Your task to perform on an android device: open app "Mercado Libre" (install if not already installed) and enter user name: "tolerating@yahoo.com" and password: "Kepler" Image 0: 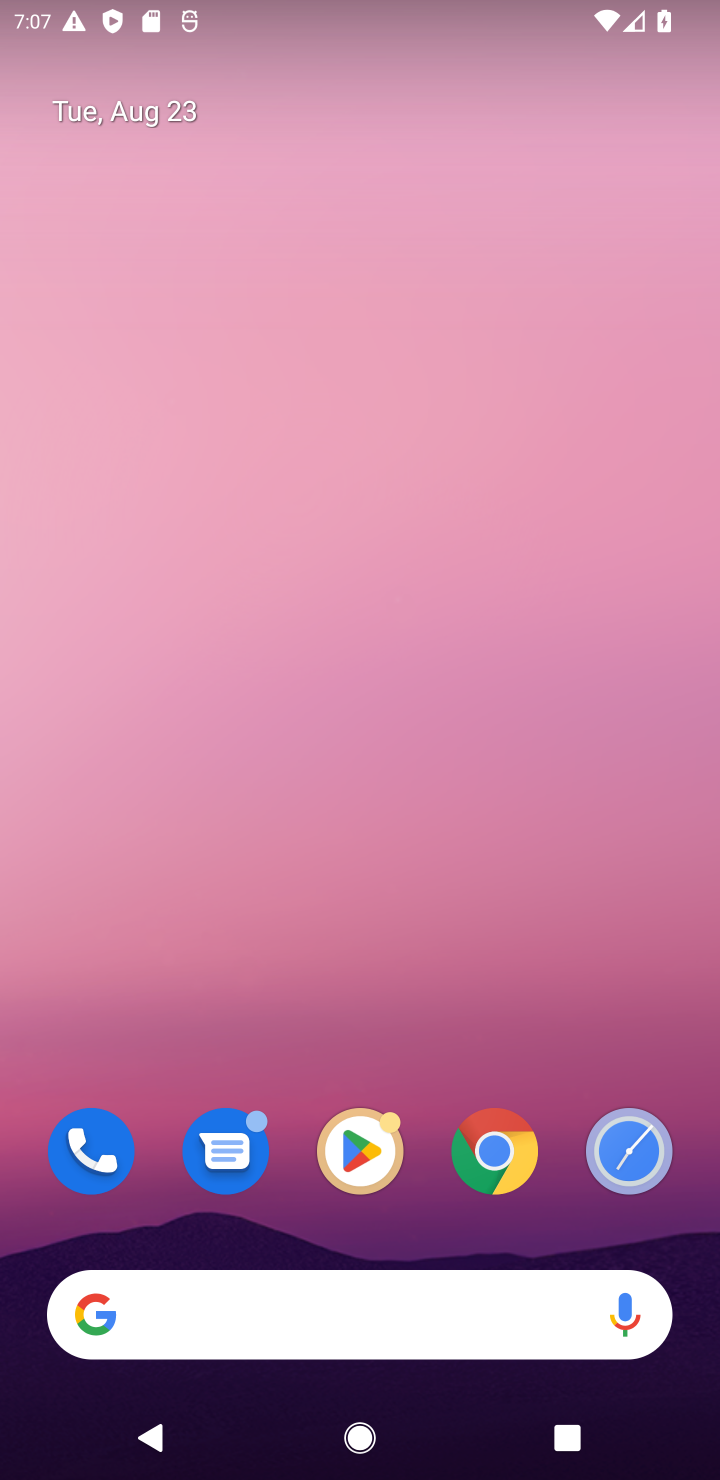
Step 0: press home button
Your task to perform on an android device: open app "Mercado Libre" (install if not already installed) and enter user name: "tolerating@yahoo.com" and password: "Kepler" Image 1: 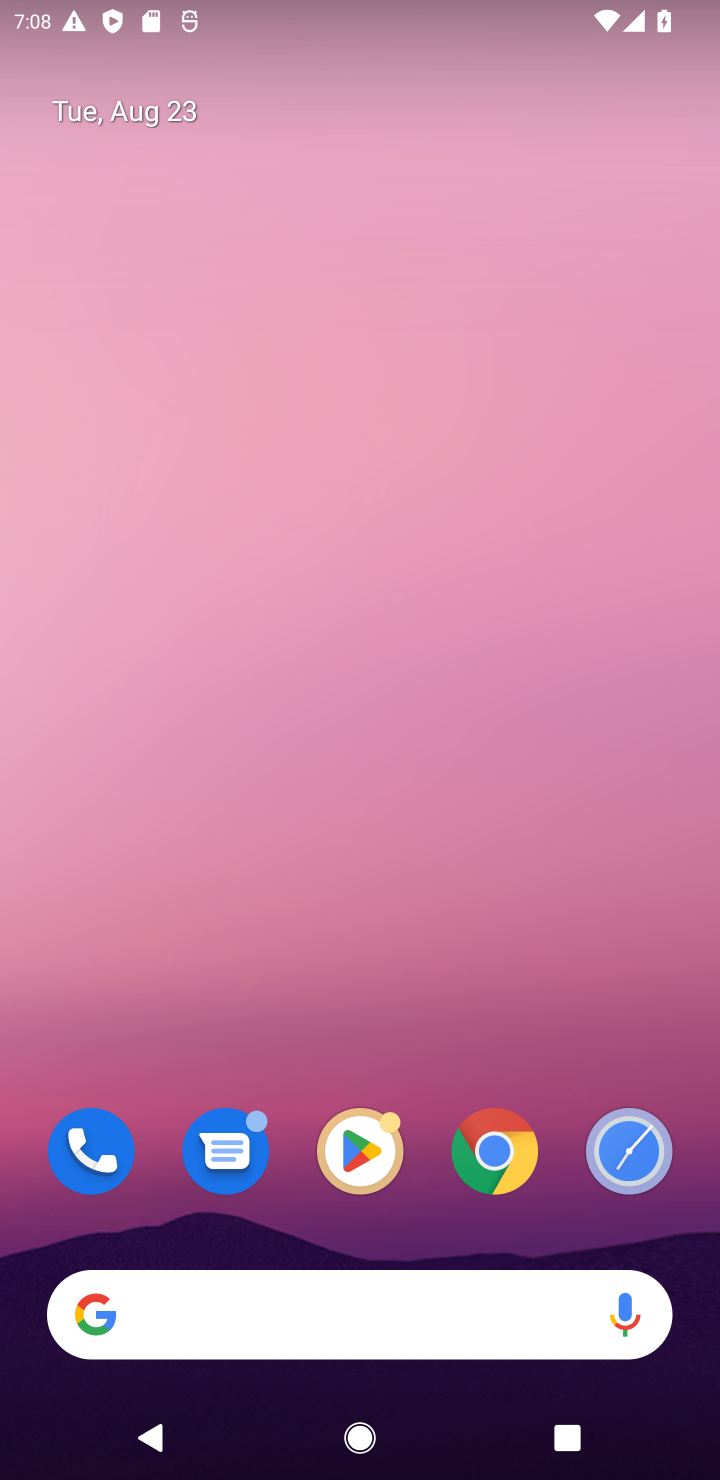
Step 1: click (357, 1141)
Your task to perform on an android device: open app "Mercado Libre" (install if not already installed) and enter user name: "tolerating@yahoo.com" and password: "Kepler" Image 2: 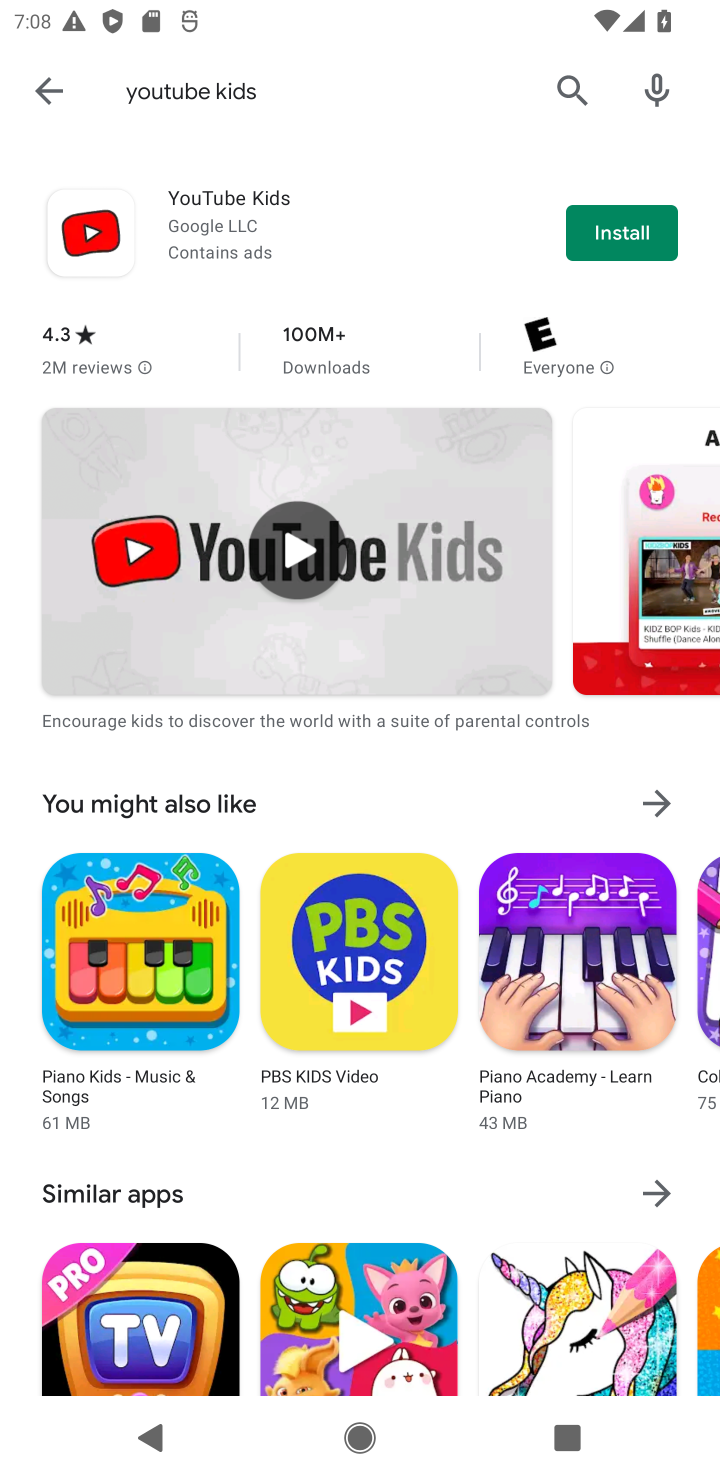
Step 2: click (558, 96)
Your task to perform on an android device: open app "Mercado Libre" (install if not already installed) and enter user name: "tolerating@yahoo.com" and password: "Kepler" Image 3: 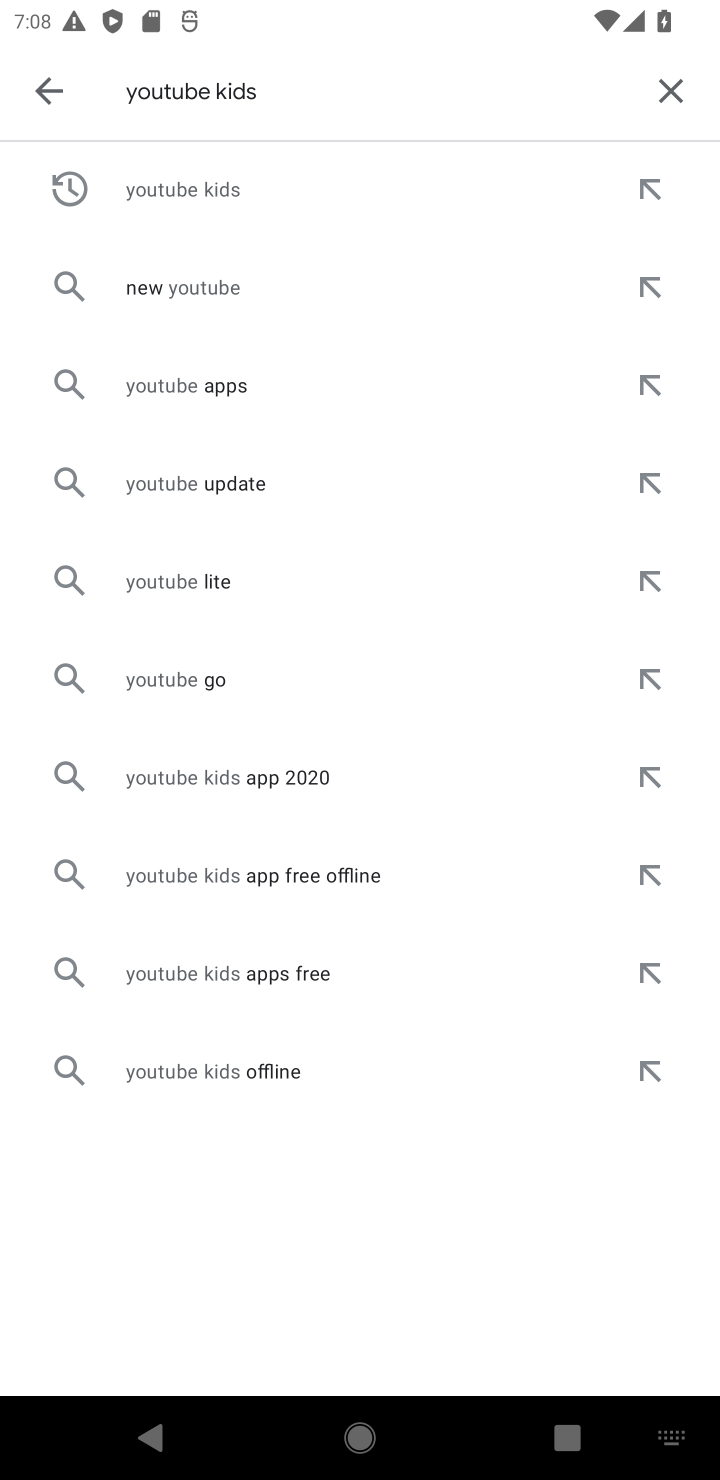
Step 3: click (673, 89)
Your task to perform on an android device: open app "Mercado Libre" (install if not already installed) and enter user name: "tolerating@yahoo.com" and password: "Kepler" Image 4: 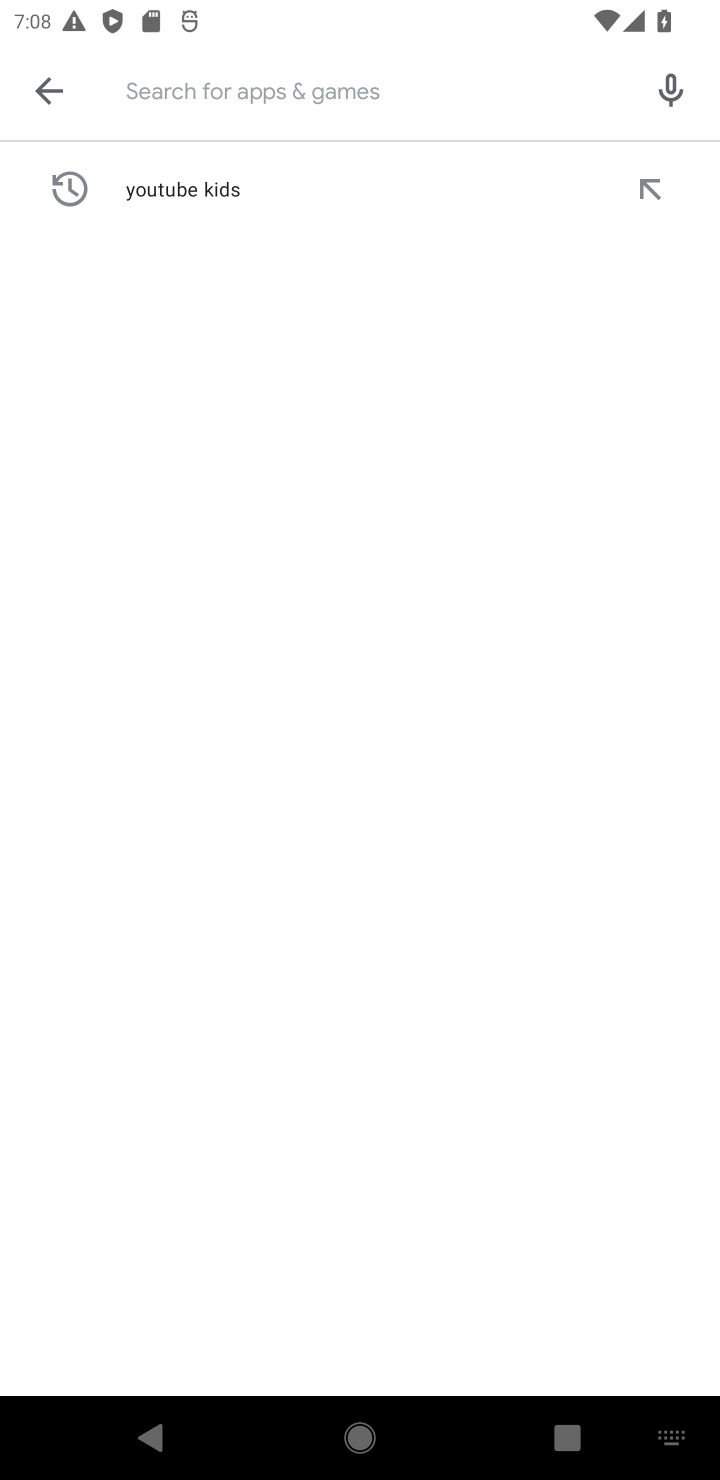
Step 4: type "Mercado Libre"
Your task to perform on an android device: open app "Mercado Libre" (install if not already installed) and enter user name: "tolerating@yahoo.com" and password: "Kepler" Image 5: 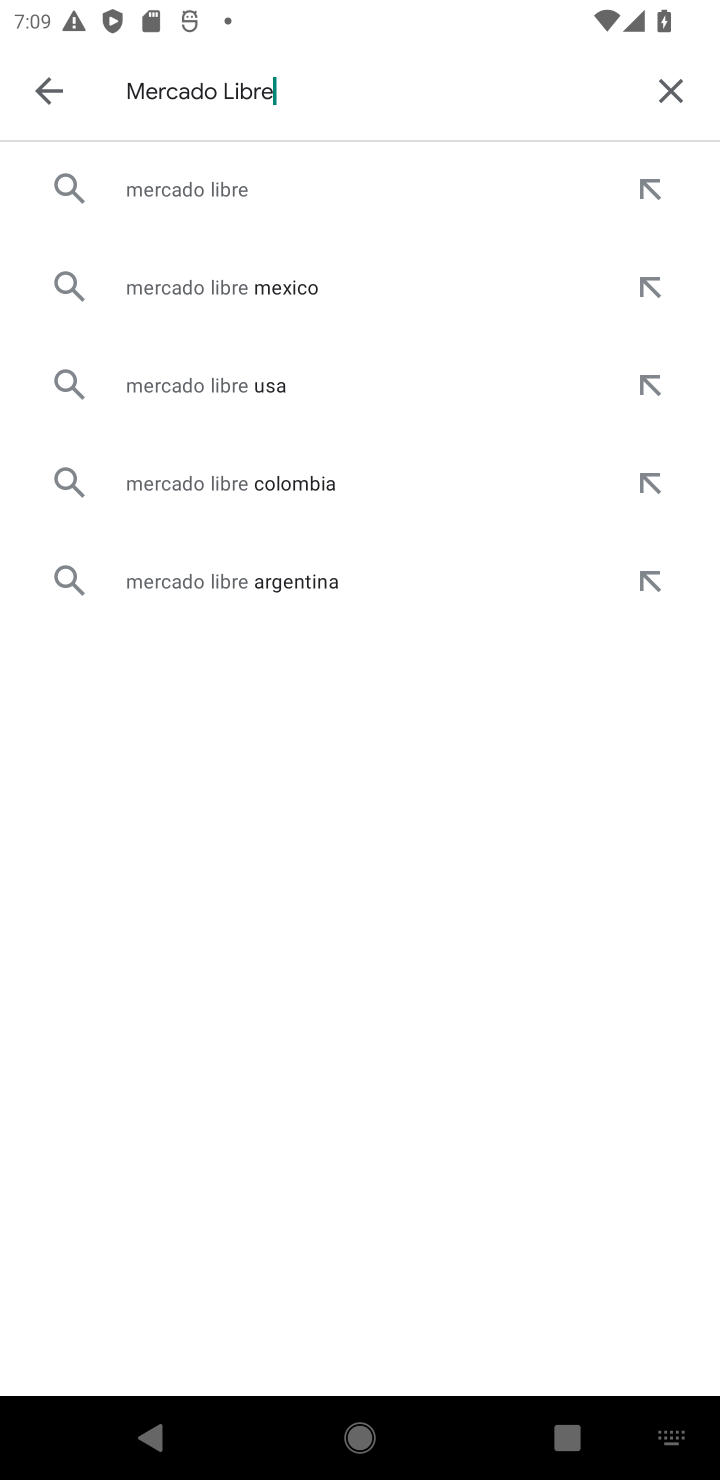
Step 5: click (176, 206)
Your task to perform on an android device: open app "Mercado Libre" (install if not already installed) and enter user name: "tolerating@yahoo.com" and password: "Kepler" Image 6: 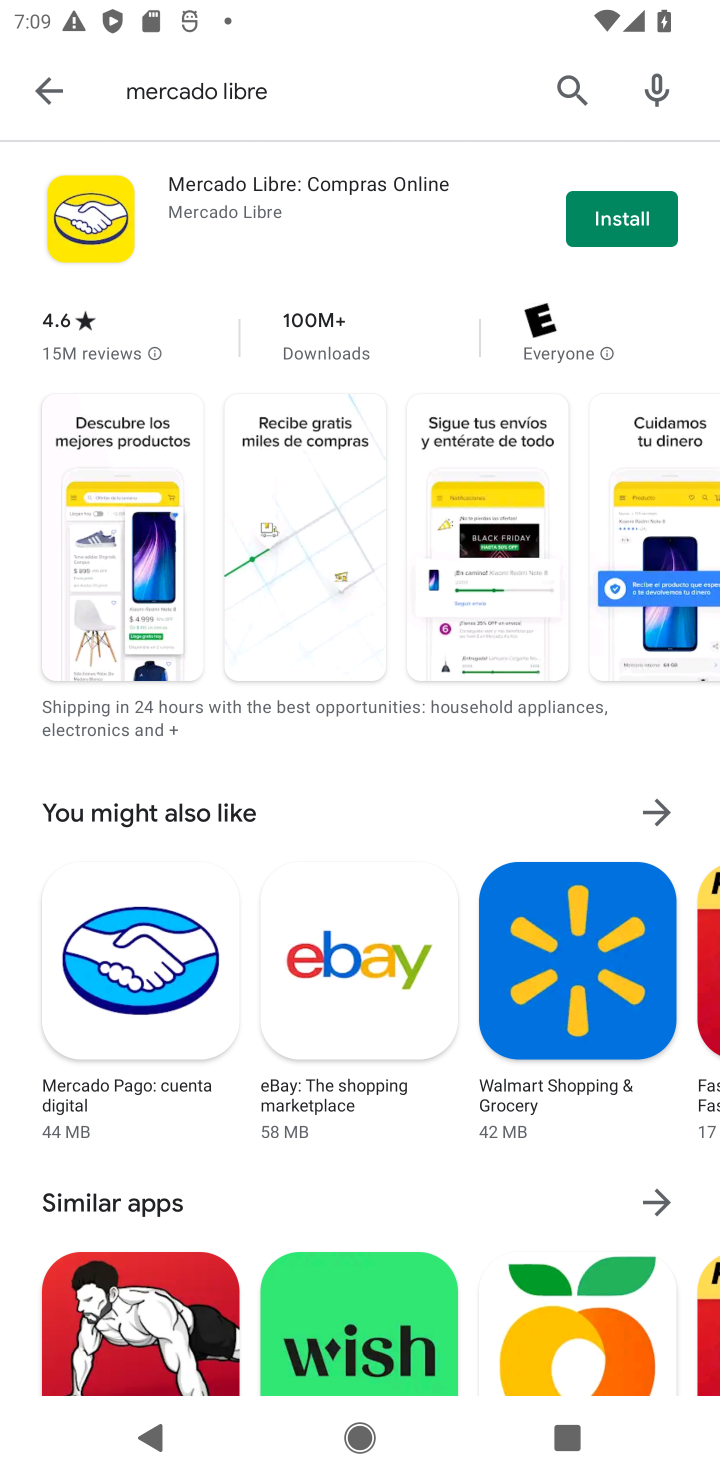
Step 6: click (624, 219)
Your task to perform on an android device: open app "Mercado Libre" (install if not already installed) and enter user name: "tolerating@yahoo.com" and password: "Kepler" Image 7: 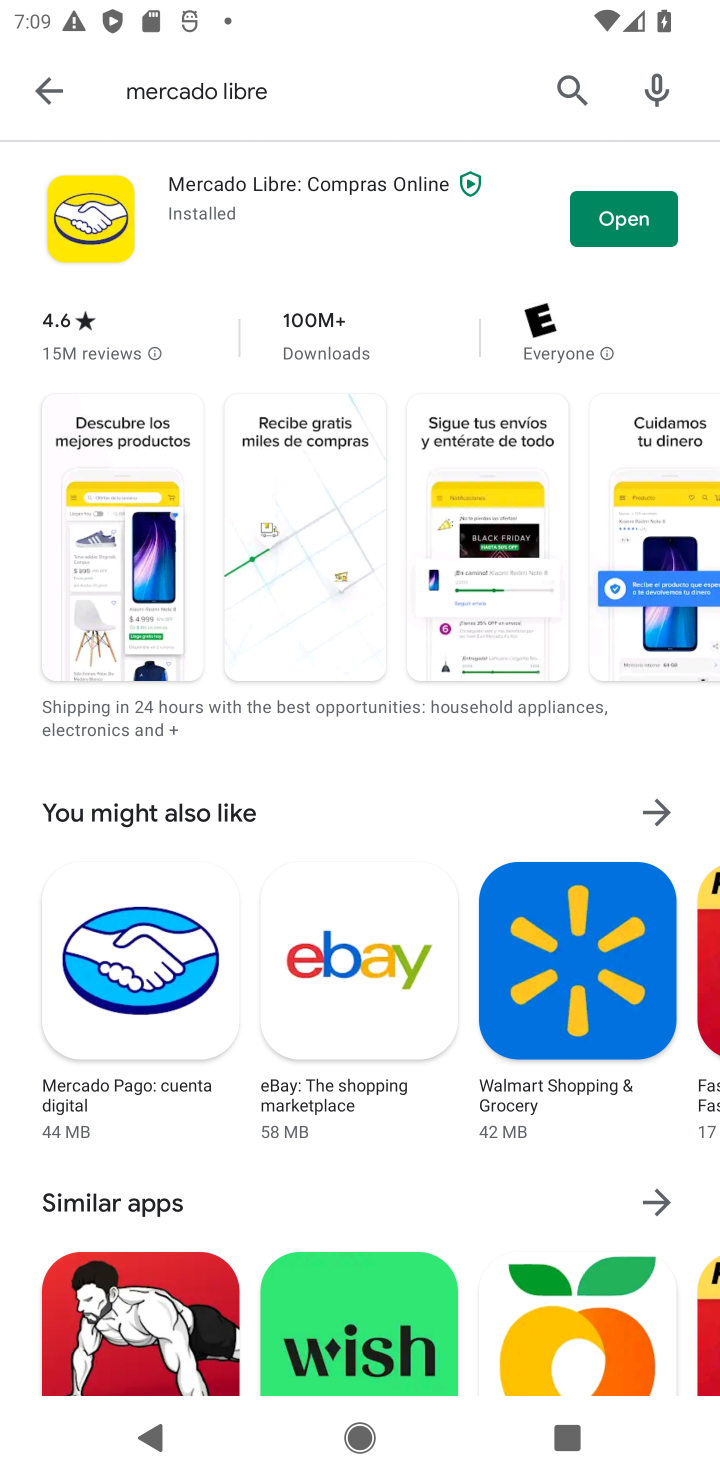
Step 7: click (613, 221)
Your task to perform on an android device: open app "Mercado Libre" (install if not already installed) and enter user name: "tolerating@yahoo.com" and password: "Kepler" Image 8: 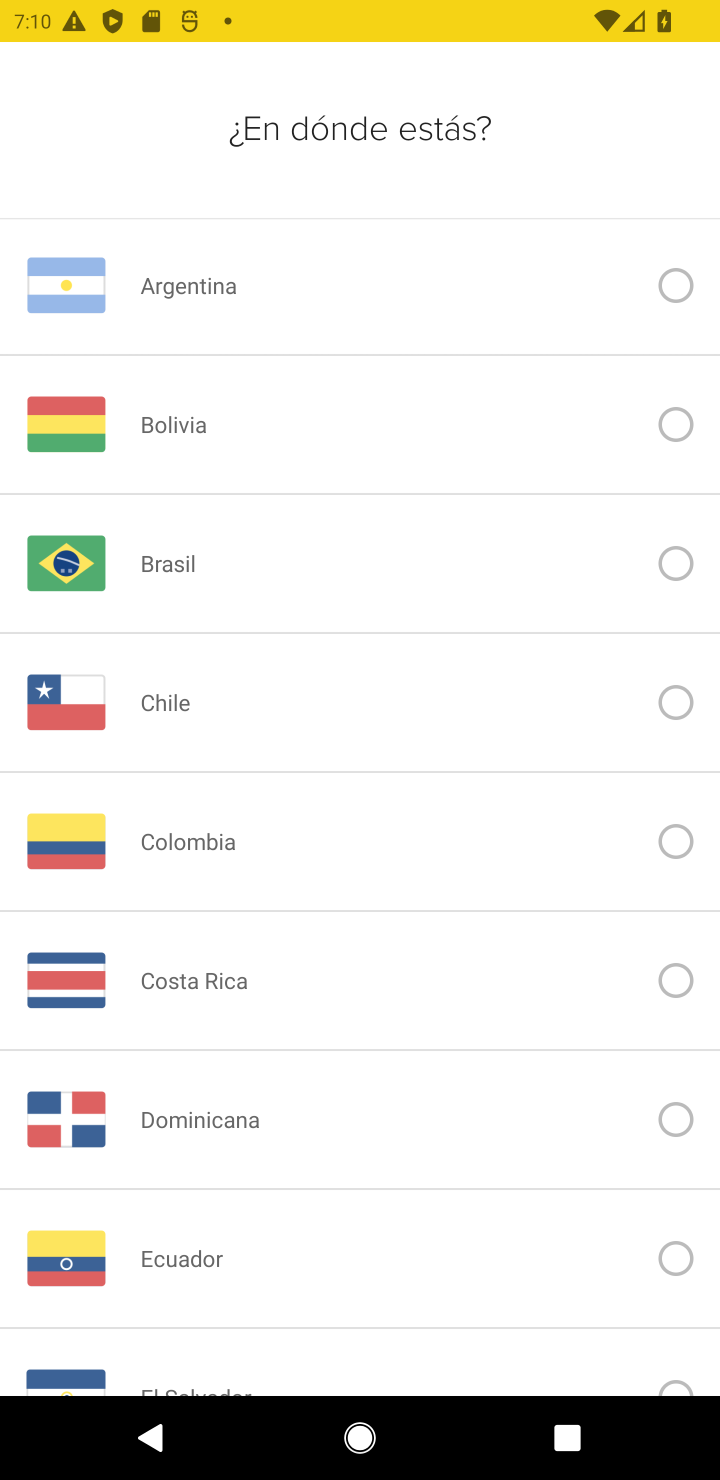
Step 8: click (668, 833)
Your task to perform on an android device: open app "Mercado Libre" (install if not already installed) and enter user name: "tolerating@yahoo.com" and password: "Kepler" Image 9: 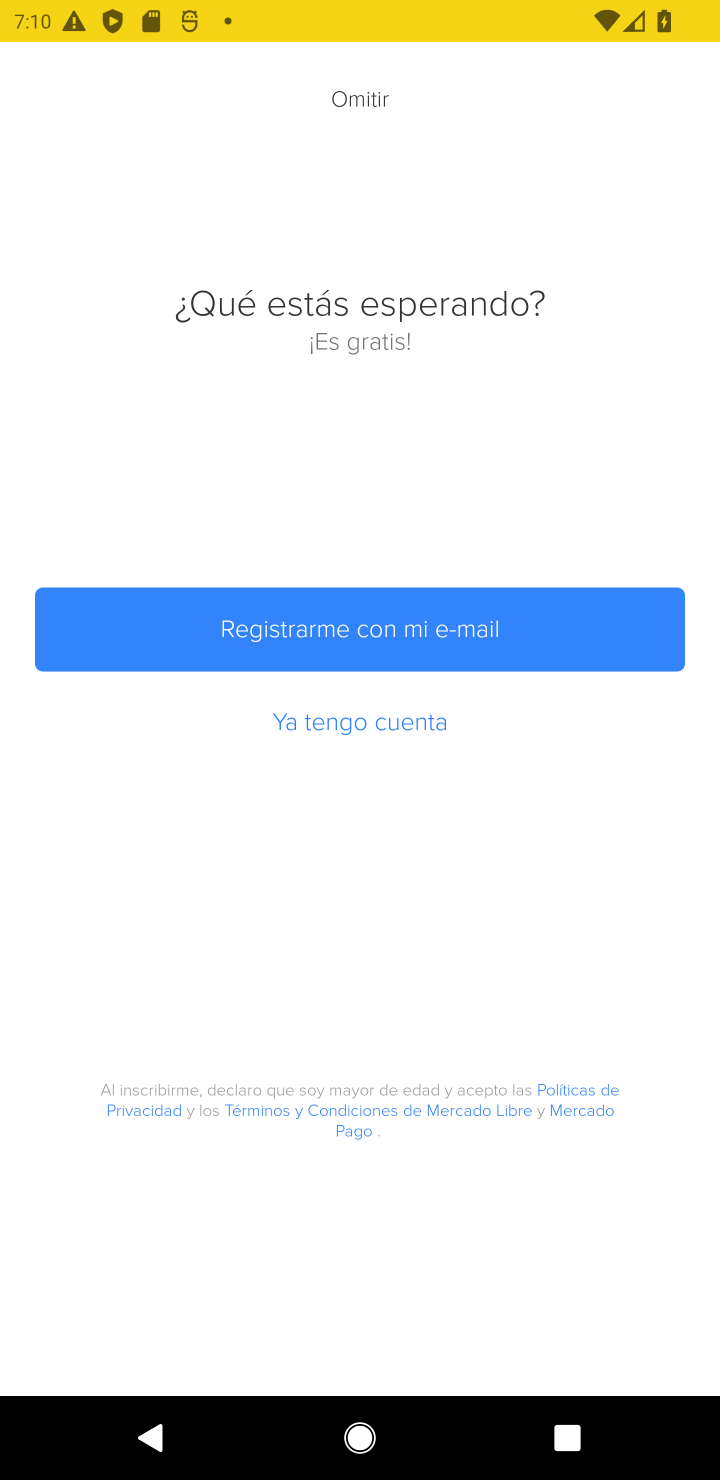
Step 9: click (367, 617)
Your task to perform on an android device: open app "Mercado Libre" (install if not already installed) and enter user name: "tolerating@yahoo.com" and password: "Kepler" Image 10: 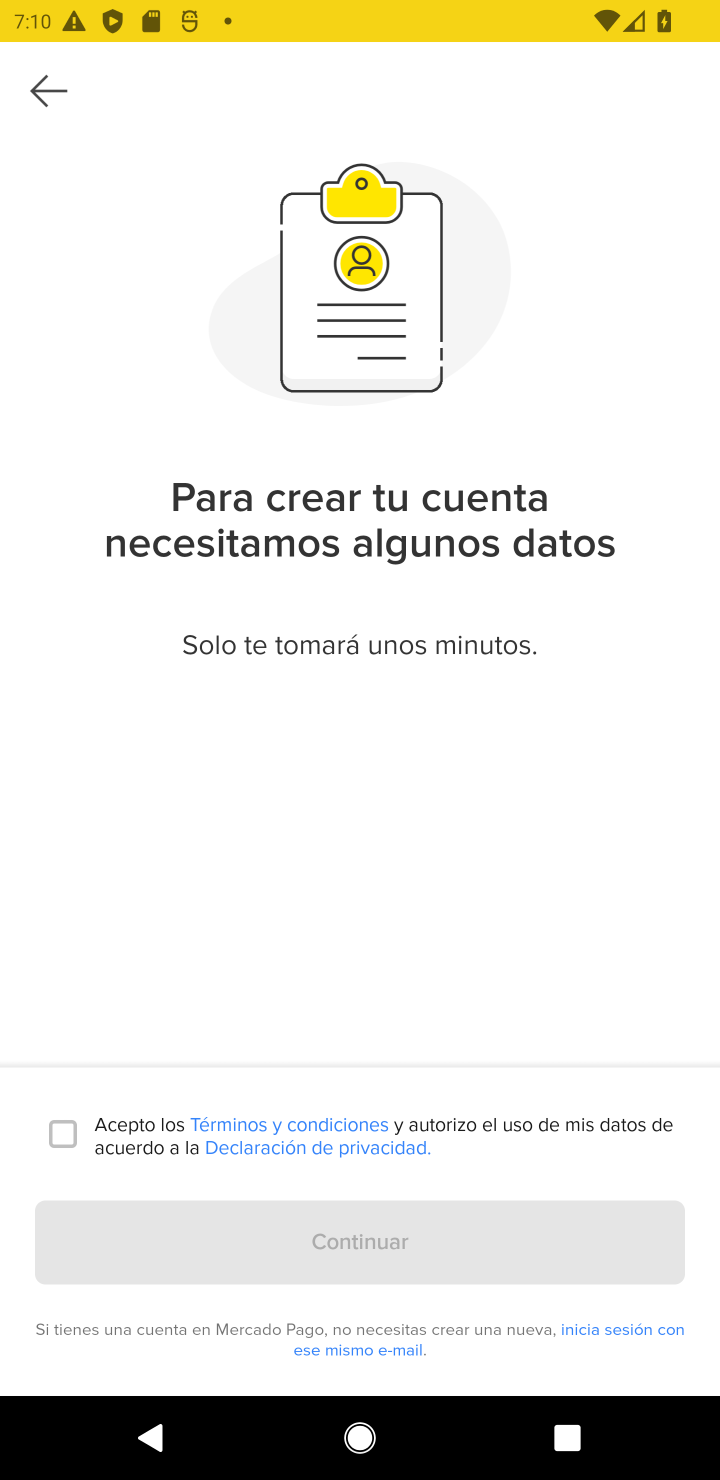
Step 10: click (66, 1140)
Your task to perform on an android device: open app "Mercado Libre" (install if not already installed) and enter user name: "tolerating@yahoo.com" and password: "Kepler" Image 11: 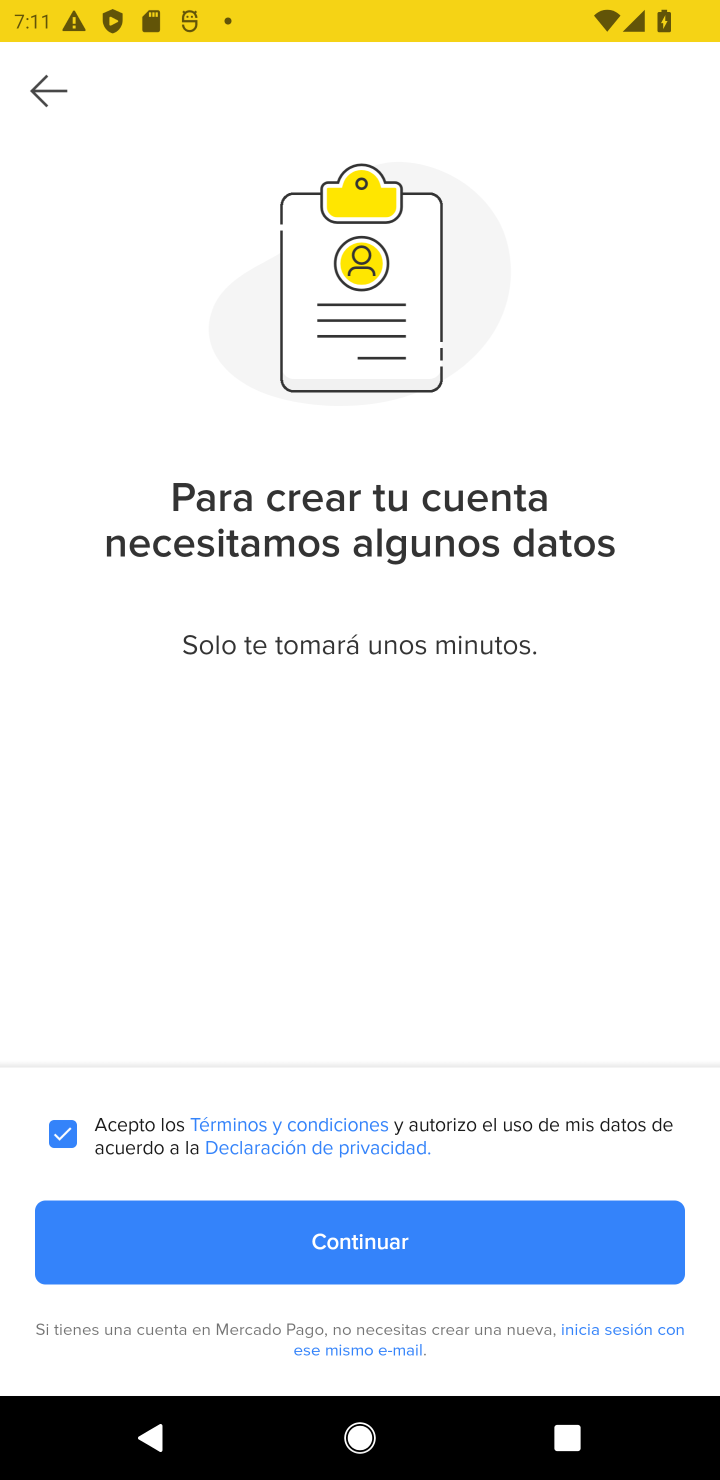
Step 11: click (336, 1251)
Your task to perform on an android device: open app "Mercado Libre" (install if not already installed) and enter user name: "tolerating@yahoo.com" and password: "Kepler" Image 12: 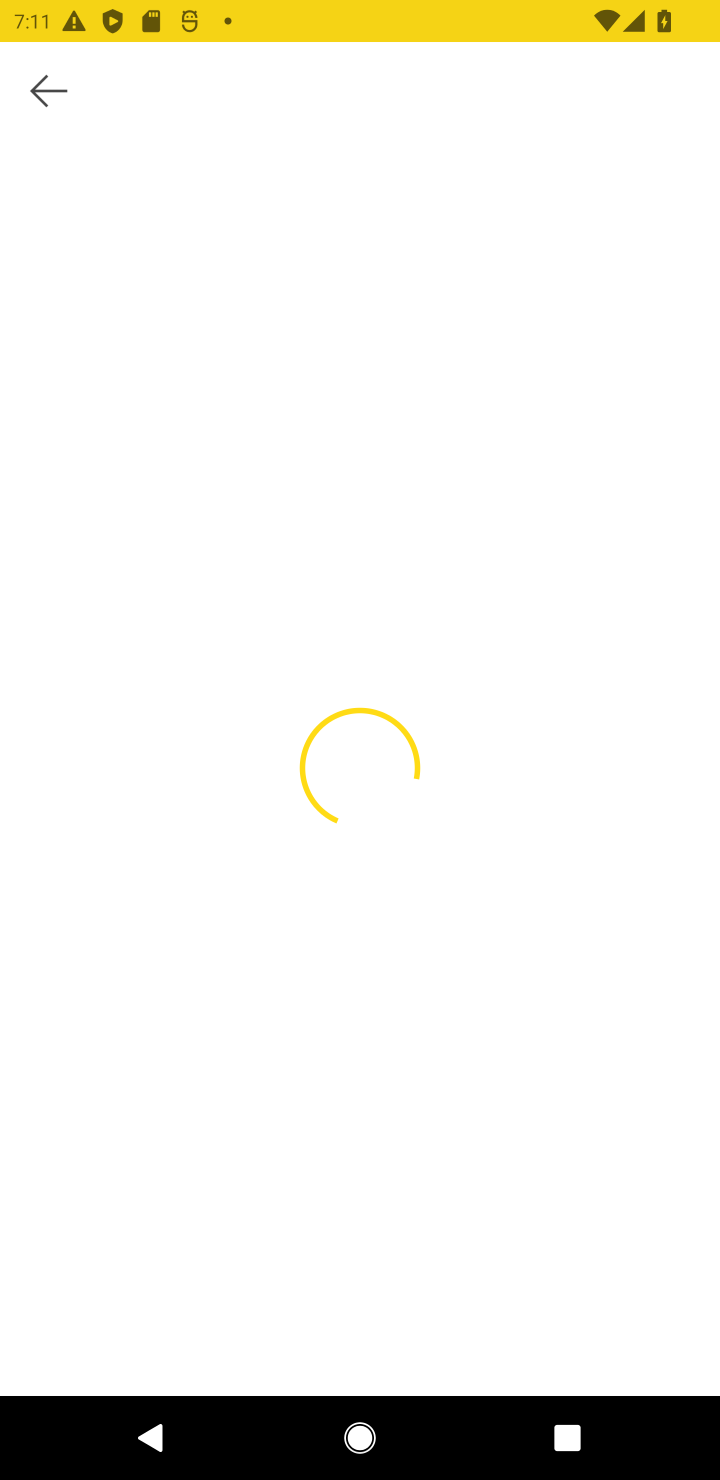
Step 12: task complete